Your task to perform on an android device: turn on wifi Image 0: 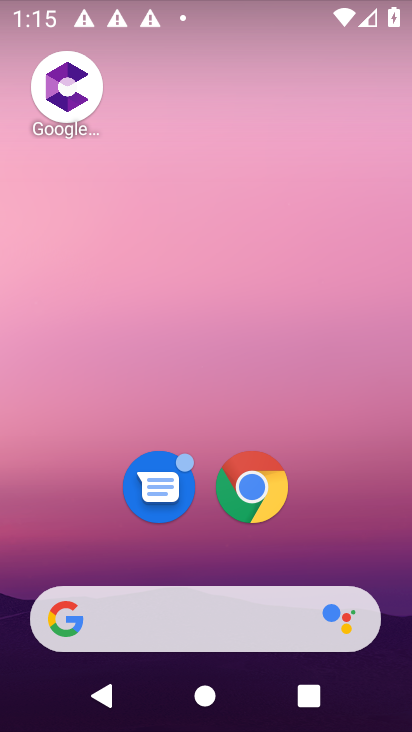
Step 0: drag from (237, 608) to (261, 8)
Your task to perform on an android device: turn on wifi Image 1: 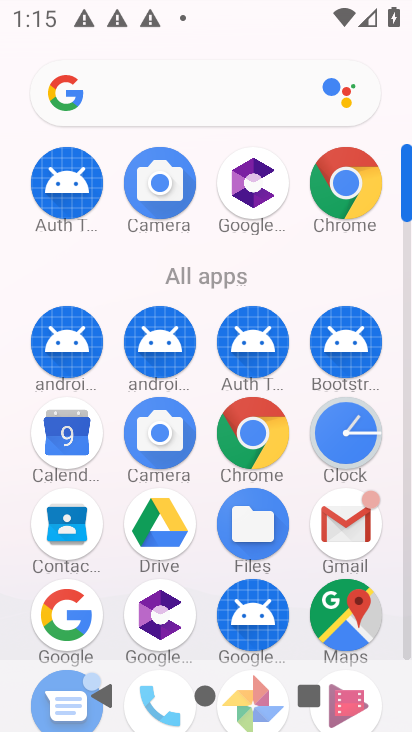
Step 1: drag from (309, 276) to (291, 43)
Your task to perform on an android device: turn on wifi Image 2: 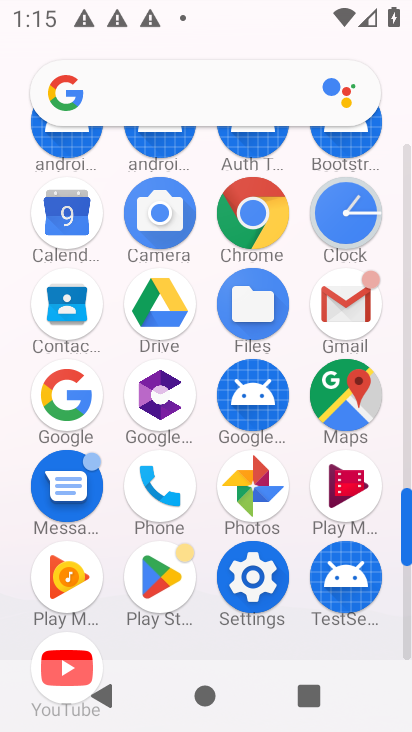
Step 2: click (245, 581)
Your task to perform on an android device: turn on wifi Image 3: 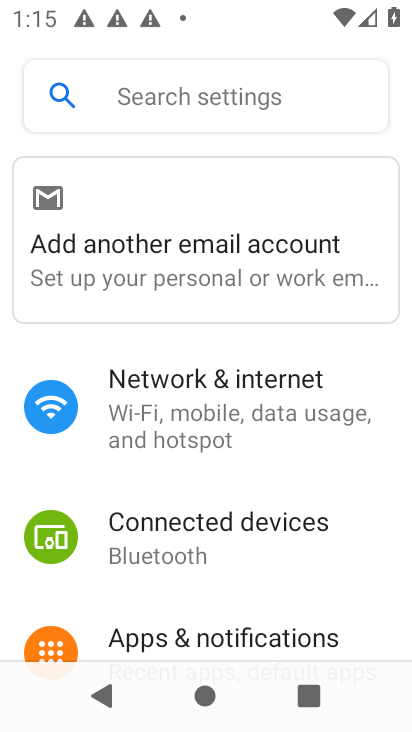
Step 3: click (245, 581)
Your task to perform on an android device: turn on wifi Image 4: 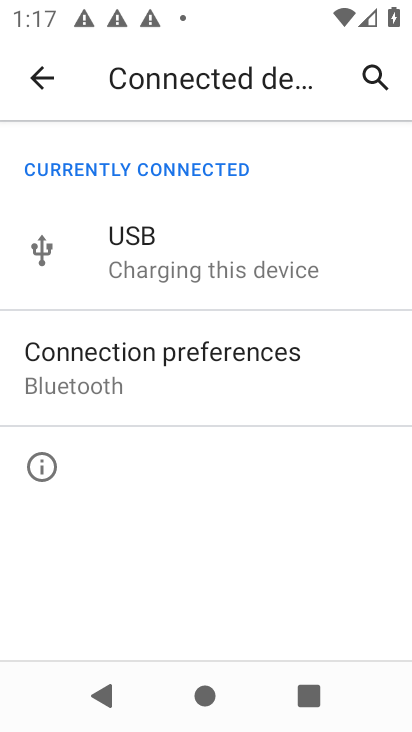
Step 4: press home button
Your task to perform on an android device: turn on wifi Image 5: 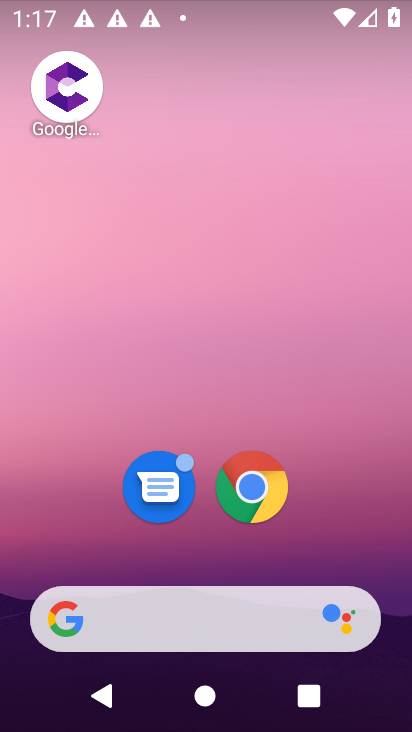
Step 5: press home button
Your task to perform on an android device: turn on wifi Image 6: 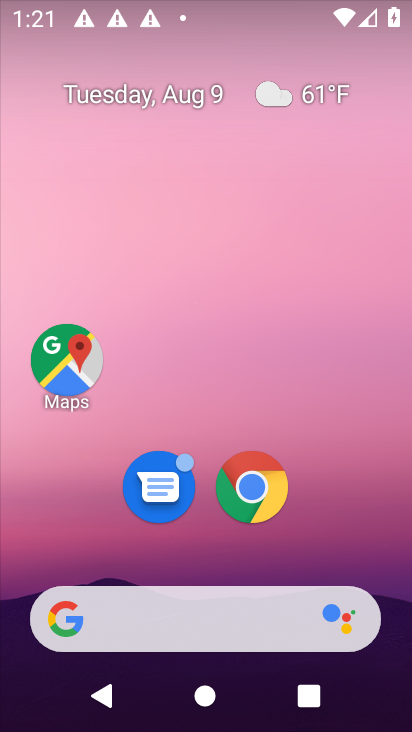
Step 6: drag from (178, 598) to (200, 3)
Your task to perform on an android device: turn on wifi Image 7: 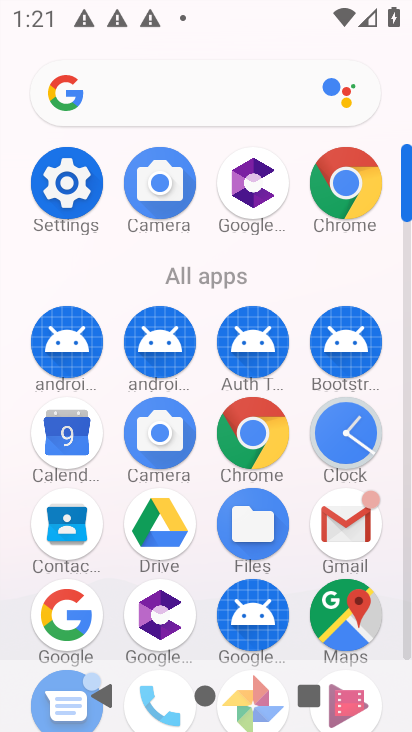
Step 7: click (77, 159)
Your task to perform on an android device: turn on wifi Image 8: 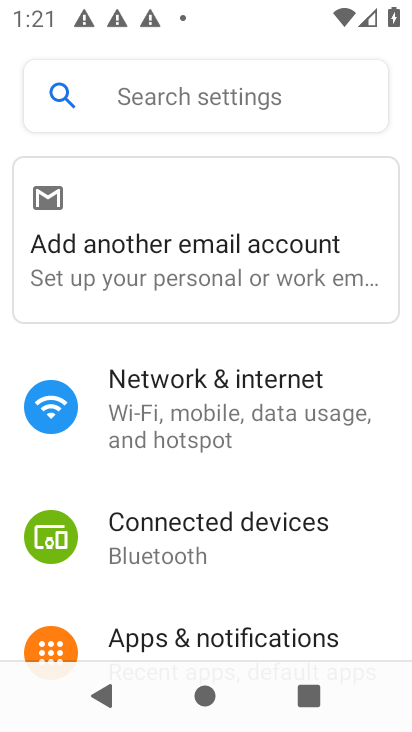
Step 8: click (242, 420)
Your task to perform on an android device: turn on wifi Image 9: 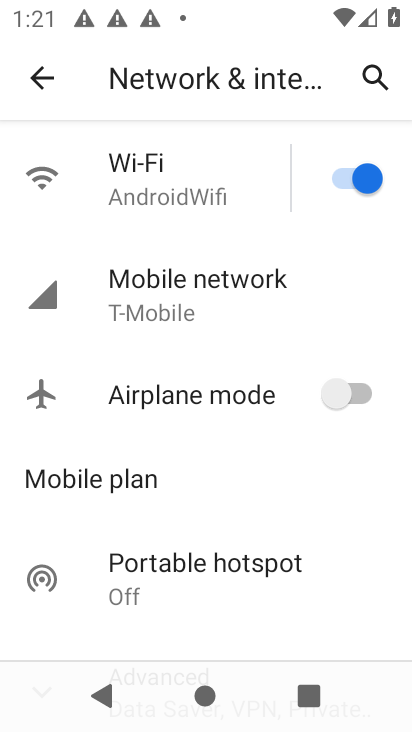
Step 9: task complete